Your task to perform on an android device: Open CNN.com Image 0: 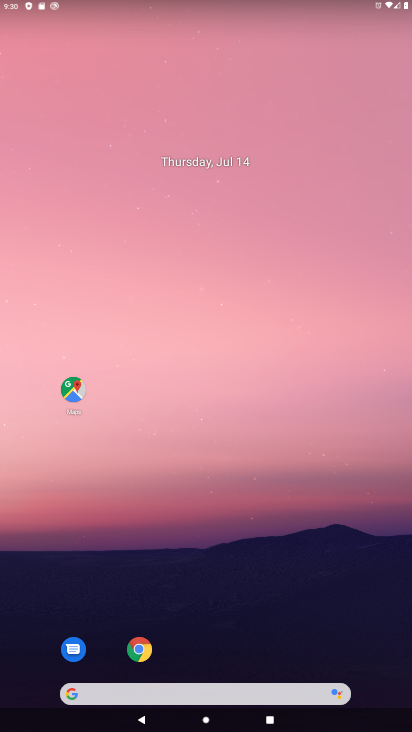
Step 0: click (231, 701)
Your task to perform on an android device: Open CNN.com Image 1: 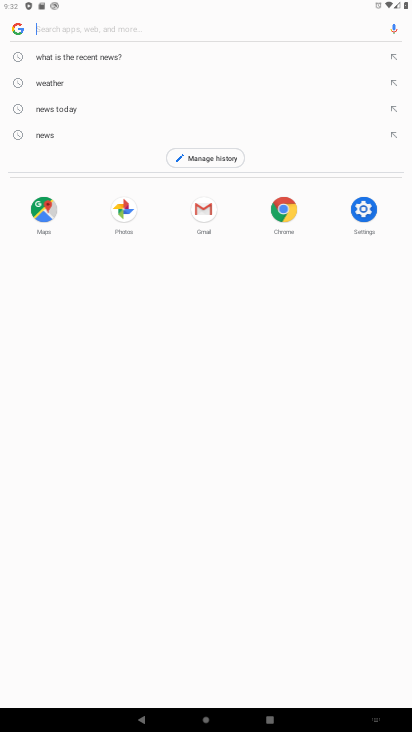
Step 1: type "cnn.com"
Your task to perform on an android device: Open CNN.com Image 2: 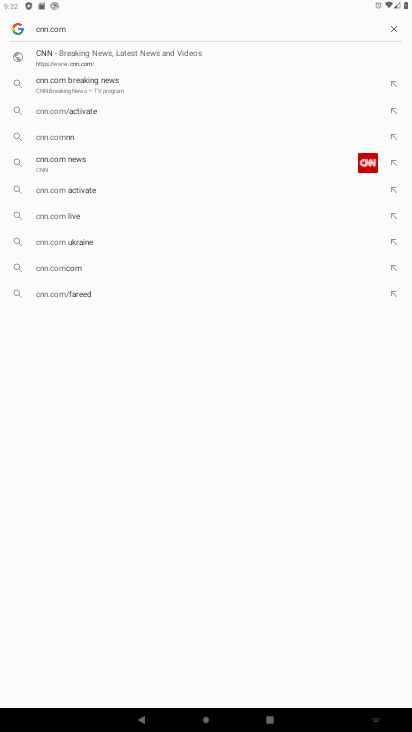
Step 2: click (117, 48)
Your task to perform on an android device: Open CNN.com Image 3: 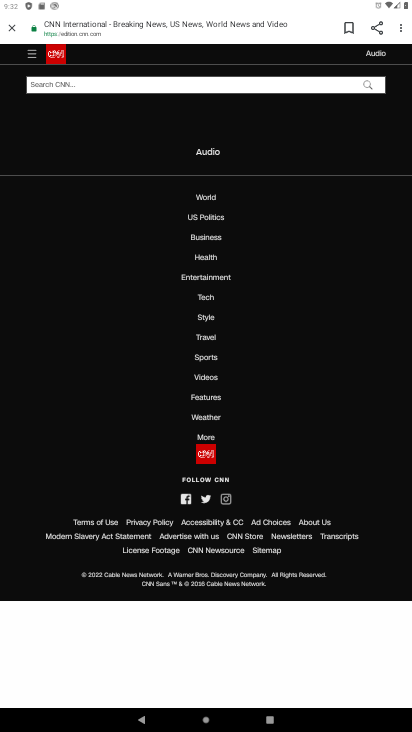
Step 3: task complete